Your task to perform on an android device: Open Wikipedia Image 0: 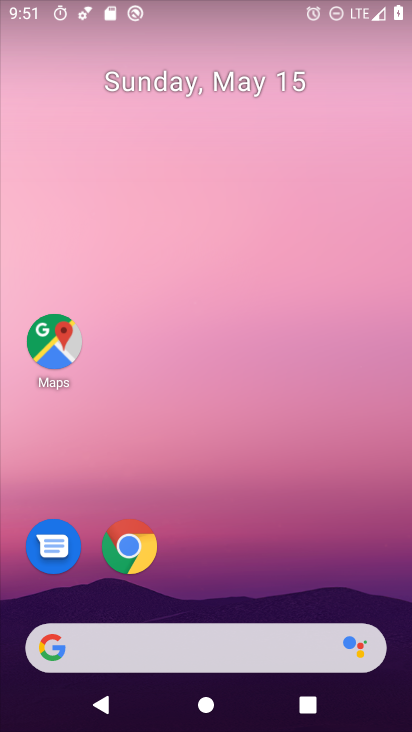
Step 0: click (146, 536)
Your task to perform on an android device: Open Wikipedia Image 1: 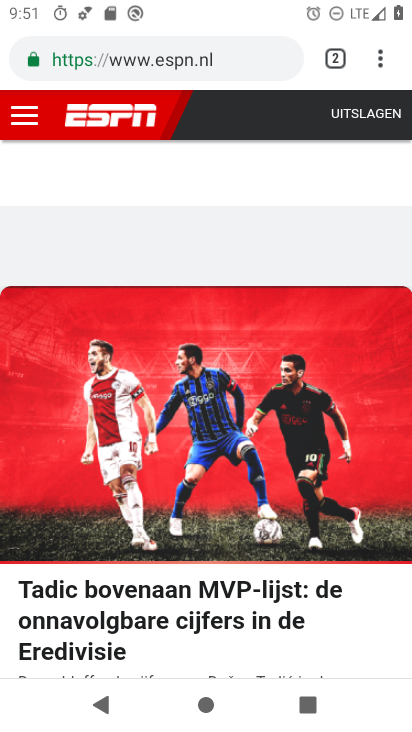
Step 1: click (372, 57)
Your task to perform on an android device: Open Wikipedia Image 2: 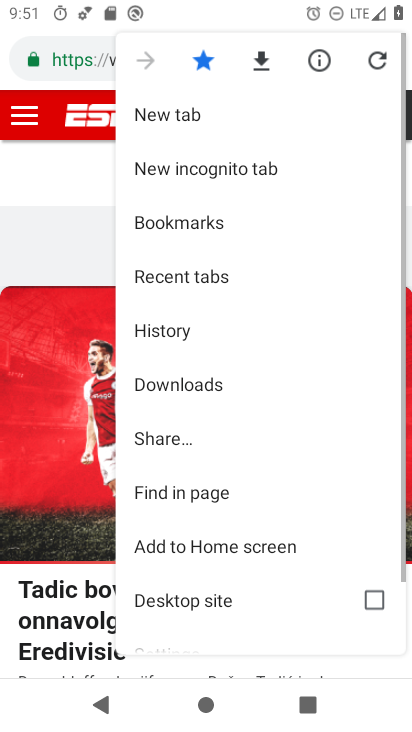
Step 2: click (319, 120)
Your task to perform on an android device: Open Wikipedia Image 3: 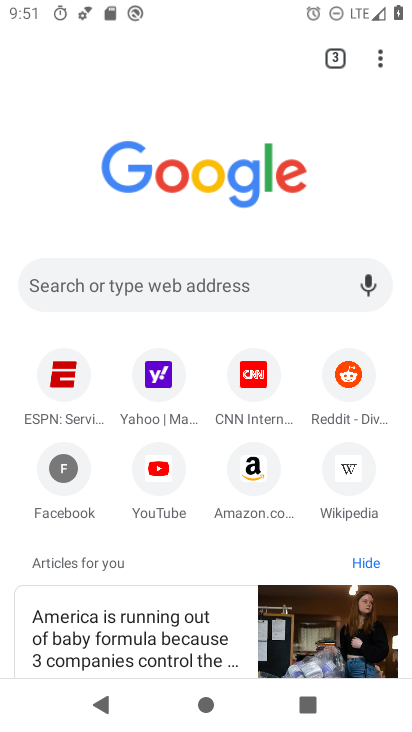
Step 3: click (356, 471)
Your task to perform on an android device: Open Wikipedia Image 4: 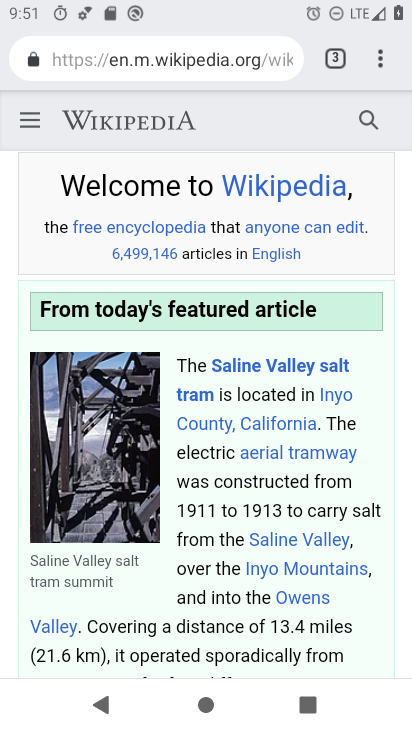
Step 4: task complete